Your task to perform on an android device: What's the weather going to be tomorrow? Image 0: 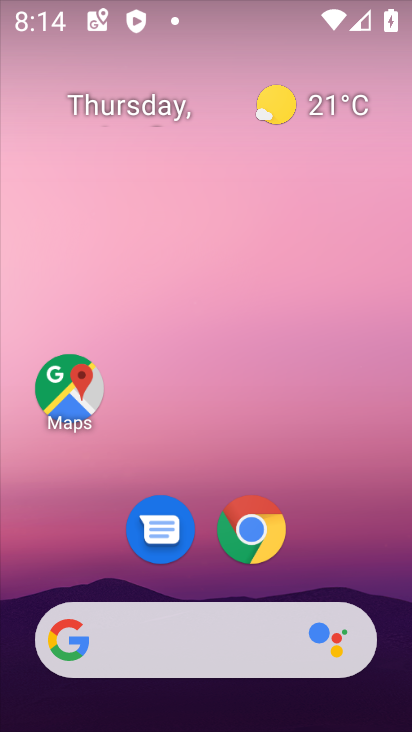
Step 0: click (263, 646)
Your task to perform on an android device: What's the weather going to be tomorrow? Image 1: 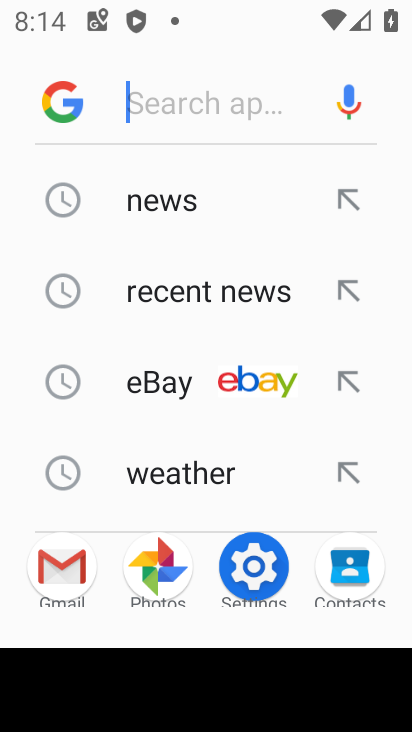
Step 1: type " What's the weather going to be tomorrow?"
Your task to perform on an android device: What's the weather going to be tomorrow? Image 2: 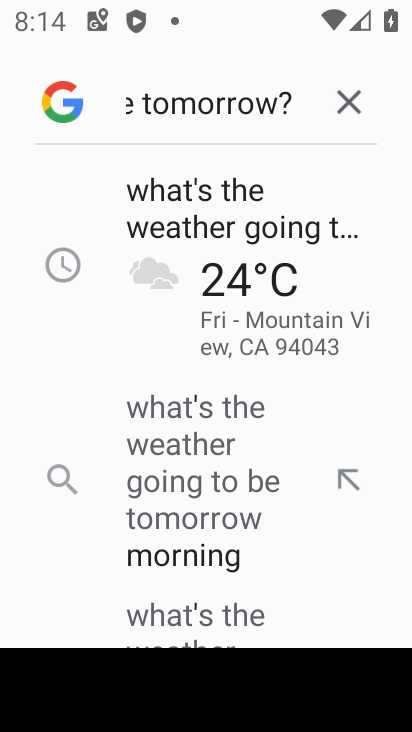
Step 2: click (211, 205)
Your task to perform on an android device: What's the weather going to be tomorrow? Image 3: 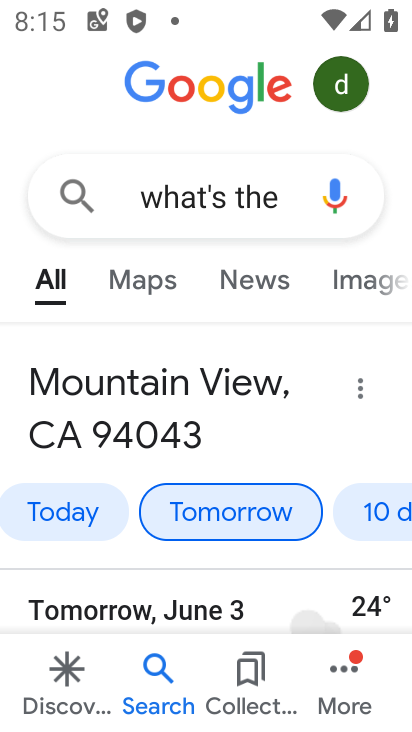
Step 3: task complete